Your task to perform on an android device: Clear all items from cart on newegg. Search for macbook on newegg, select the first entry, and add it to the cart. Image 0: 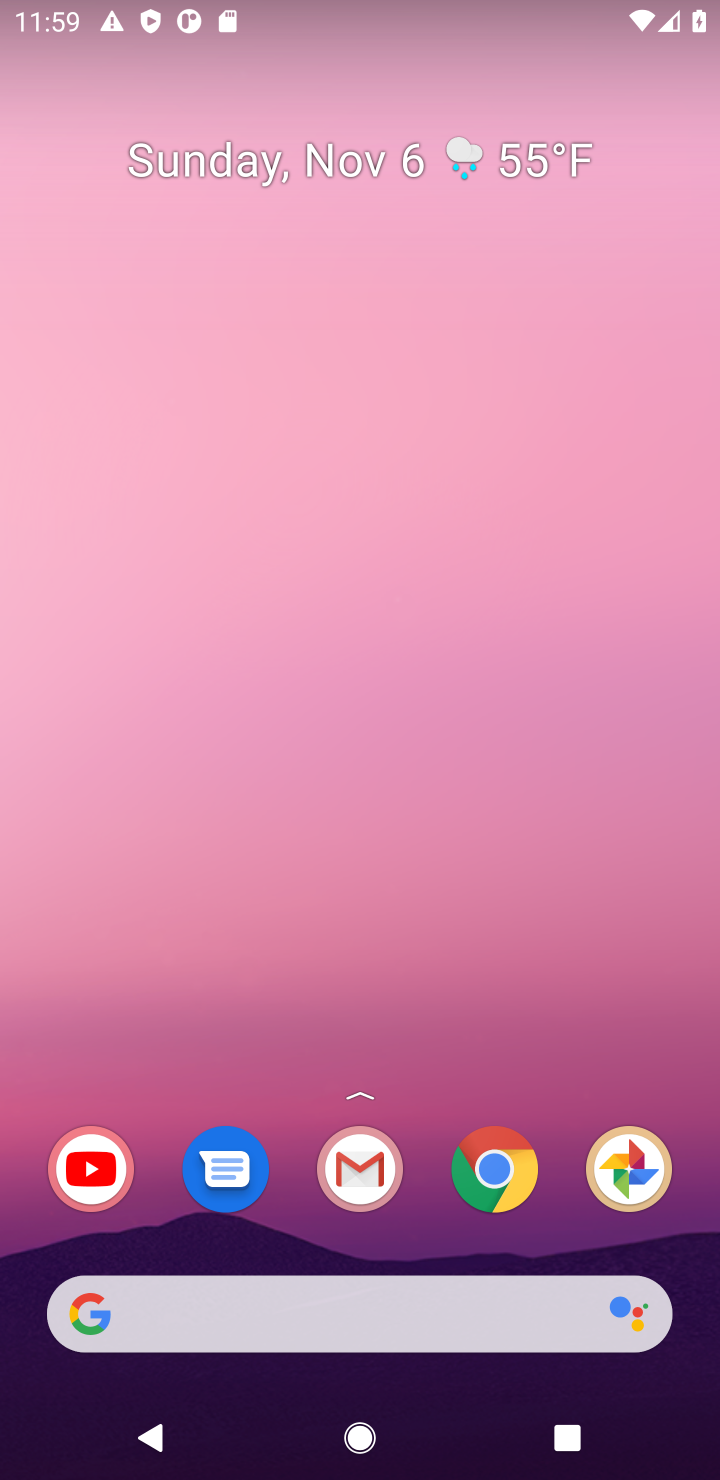
Step 0: click (496, 1176)
Your task to perform on an android device: Clear all items from cart on newegg. Search for macbook on newegg, select the first entry, and add it to the cart. Image 1: 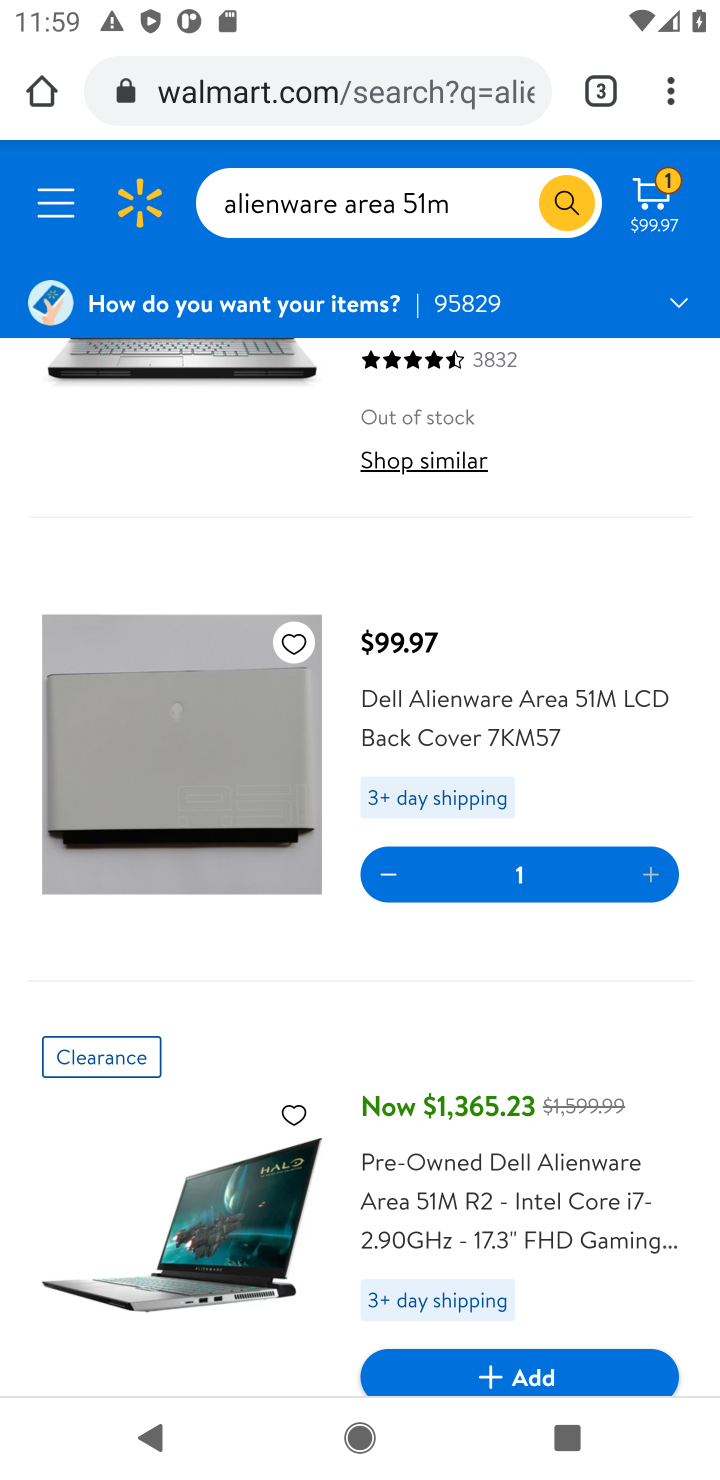
Step 1: click (603, 78)
Your task to perform on an android device: Clear all items from cart on newegg. Search for macbook on newegg, select the first entry, and add it to the cart. Image 2: 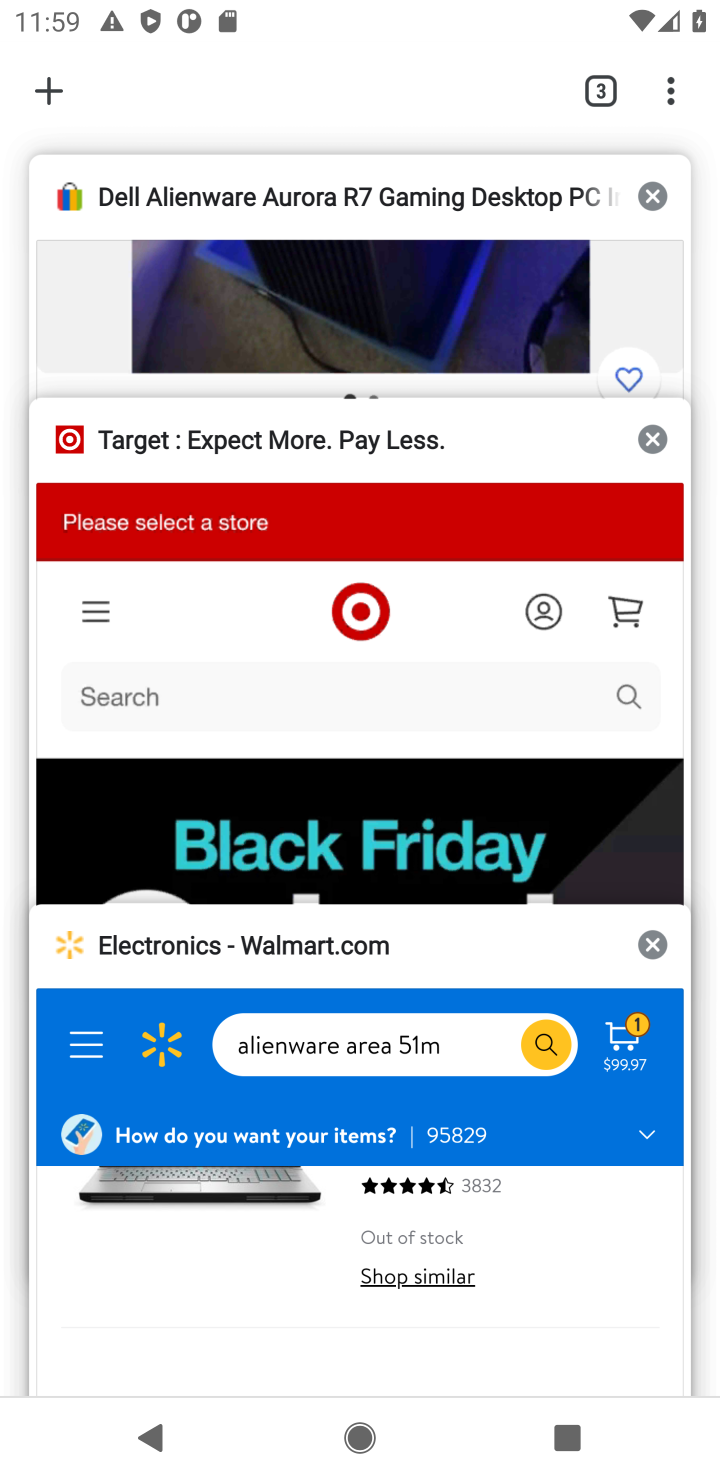
Step 2: click (43, 83)
Your task to perform on an android device: Clear all items from cart on newegg. Search for macbook on newegg, select the first entry, and add it to the cart. Image 3: 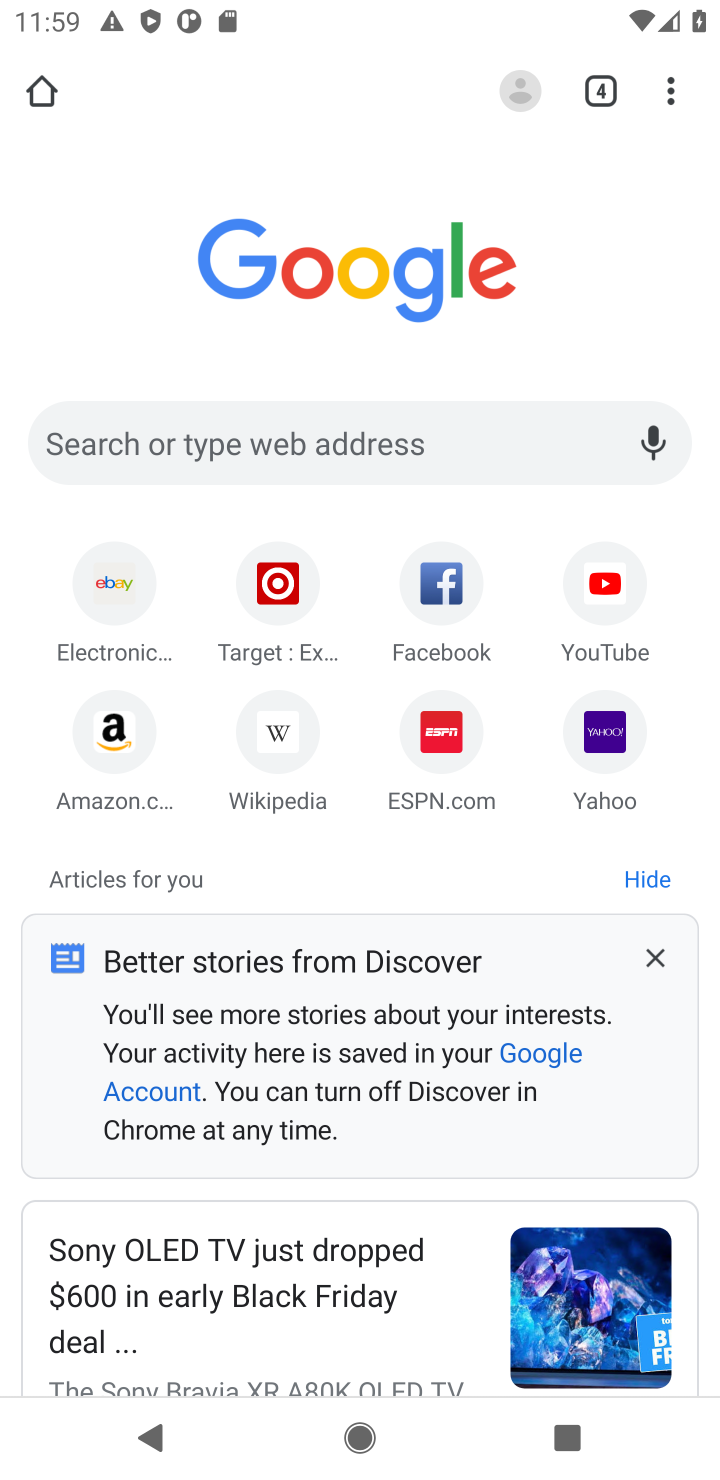
Step 3: click (318, 436)
Your task to perform on an android device: Clear all items from cart on newegg. Search for macbook on newegg, select the first entry, and add it to the cart. Image 4: 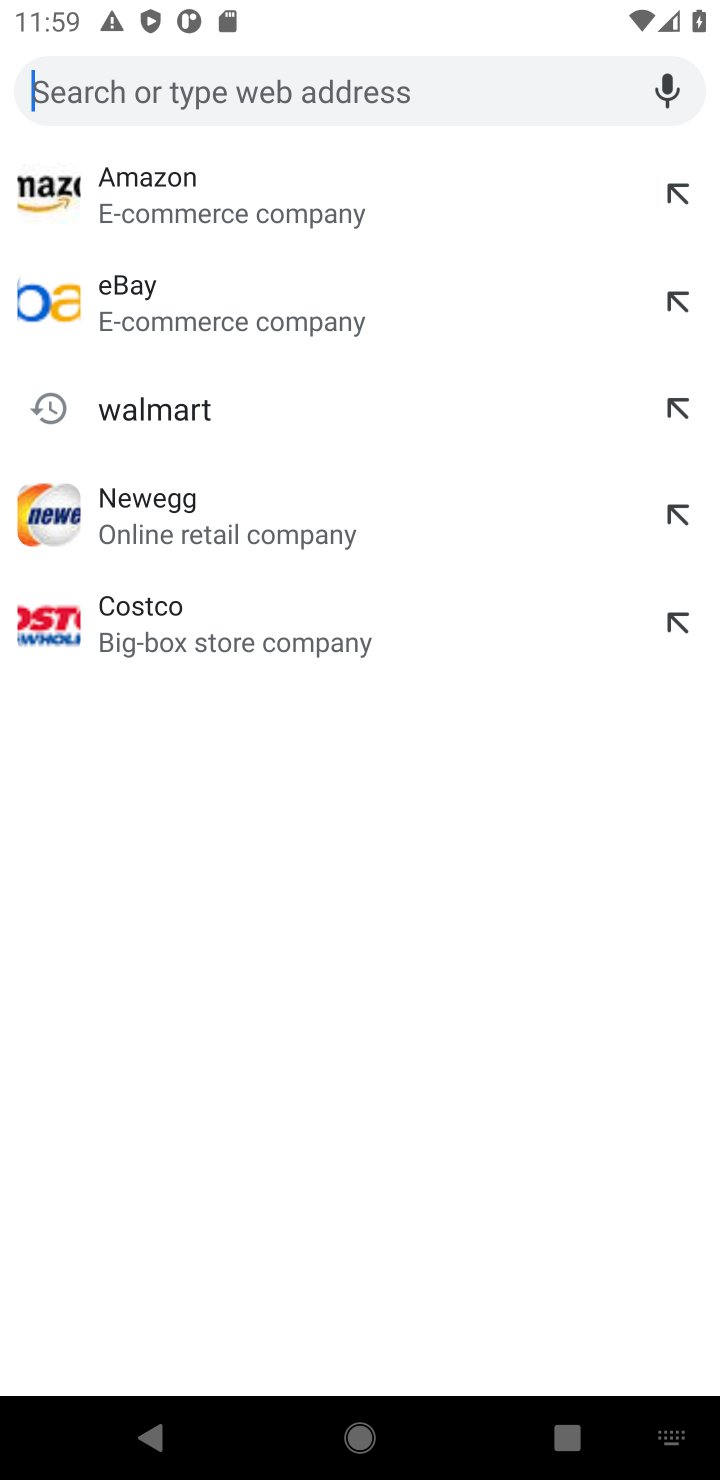
Step 4: click (268, 511)
Your task to perform on an android device: Clear all items from cart on newegg. Search for macbook on newegg, select the first entry, and add it to the cart. Image 5: 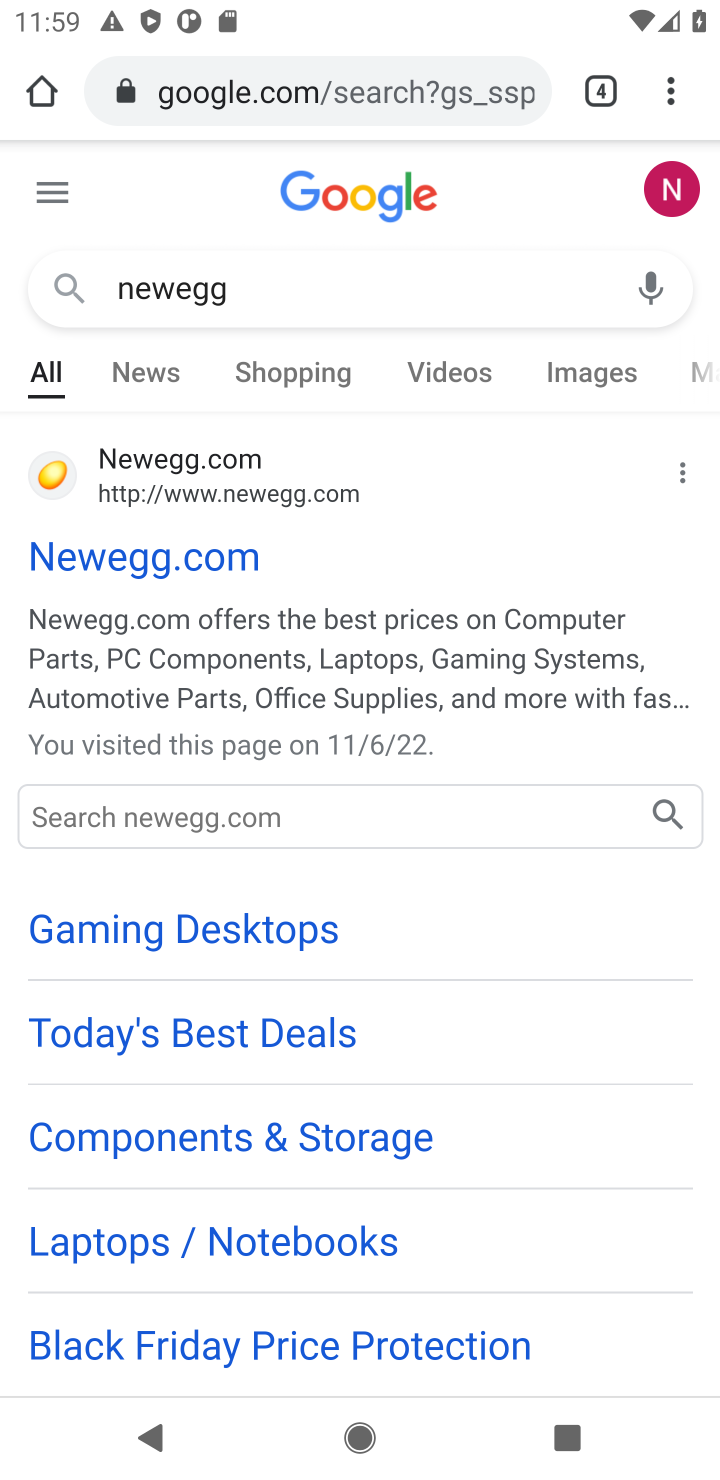
Step 5: click (245, 805)
Your task to perform on an android device: Clear all items from cart on newegg. Search for macbook on newegg, select the first entry, and add it to the cart. Image 6: 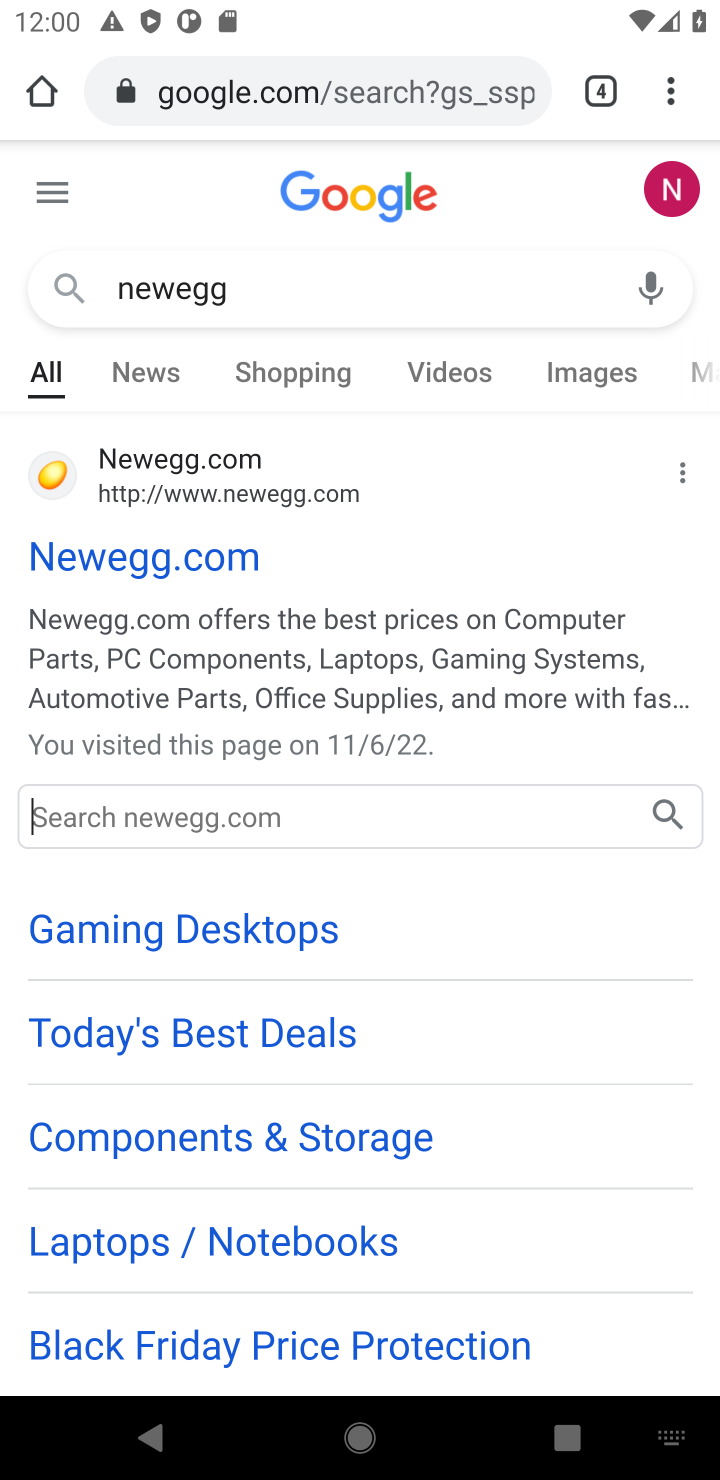
Step 6: type "macbook"
Your task to perform on an android device: Clear all items from cart on newegg. Search for macbook on newegg, select the first entry, and add it to the cart. Image 7: 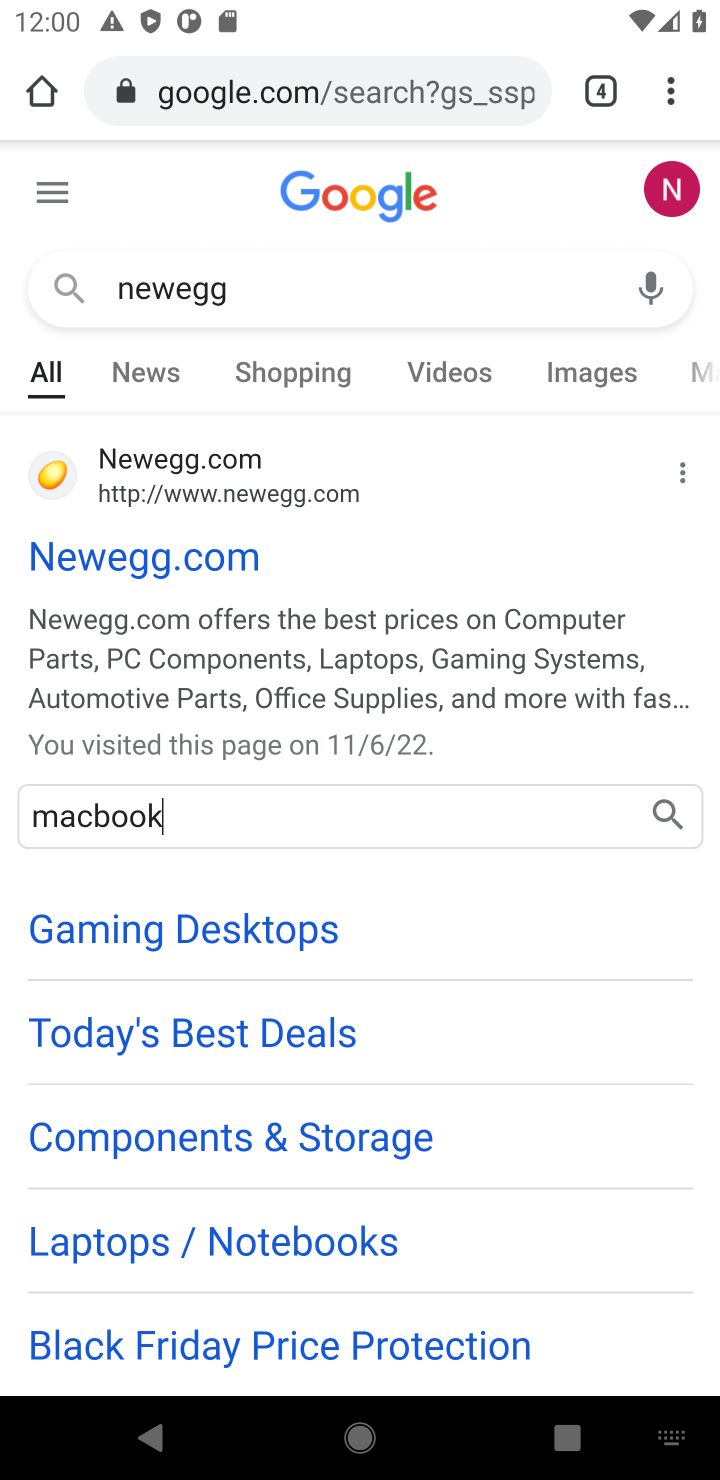
Step 7: click (664, 810)
Your task to perform on an android device: Clear all items from cart on newegg. Search for macbook on newegg, select the first entry, and add it to the cart. Image 8: 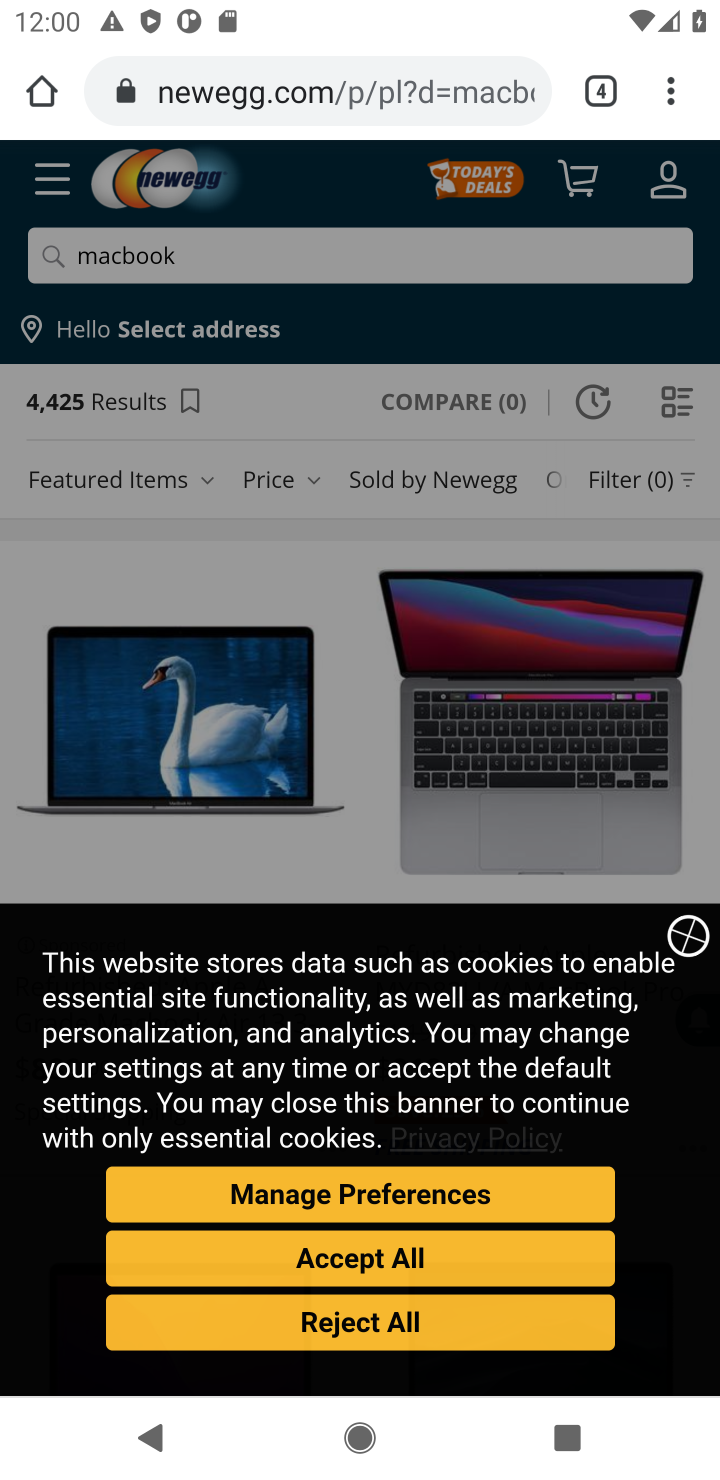
Step 8: click (124, 1009)
Your task to perform on an android device: Clear all items from cart on newegg. Search for macbook on newegg, select the first entry, and add it to the cart. Image 9: 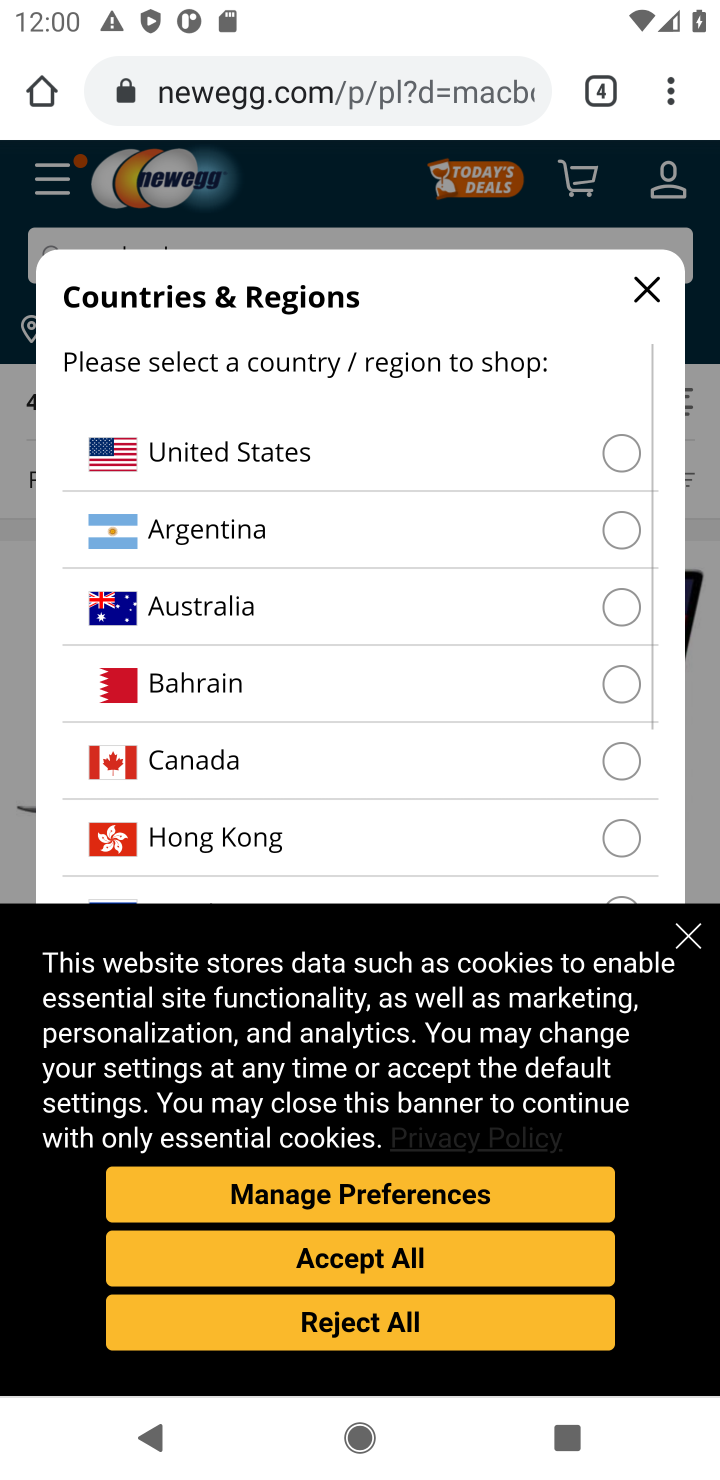
Step 9: click (401, 1263)
Your task to perform on an android device: Clear all items from cart on newegg. Search for macbook on newegg, select the first entry, and add it to the cart. Image 10: 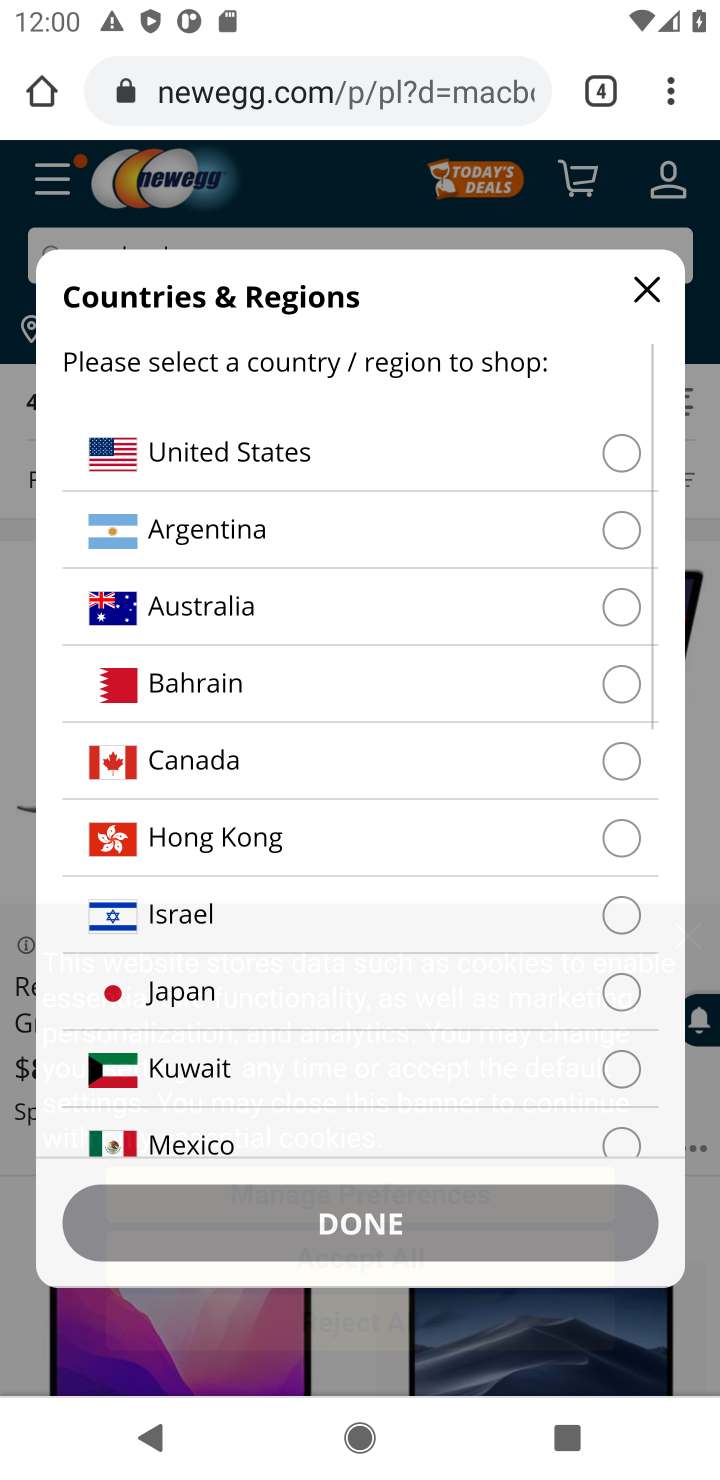
Step 10: click (634, 459)
Your task to perform on an android device: Clear all items from cart on newegg. Search for macbook on newegg, select the first entry, and add it to the cart. Image 11: 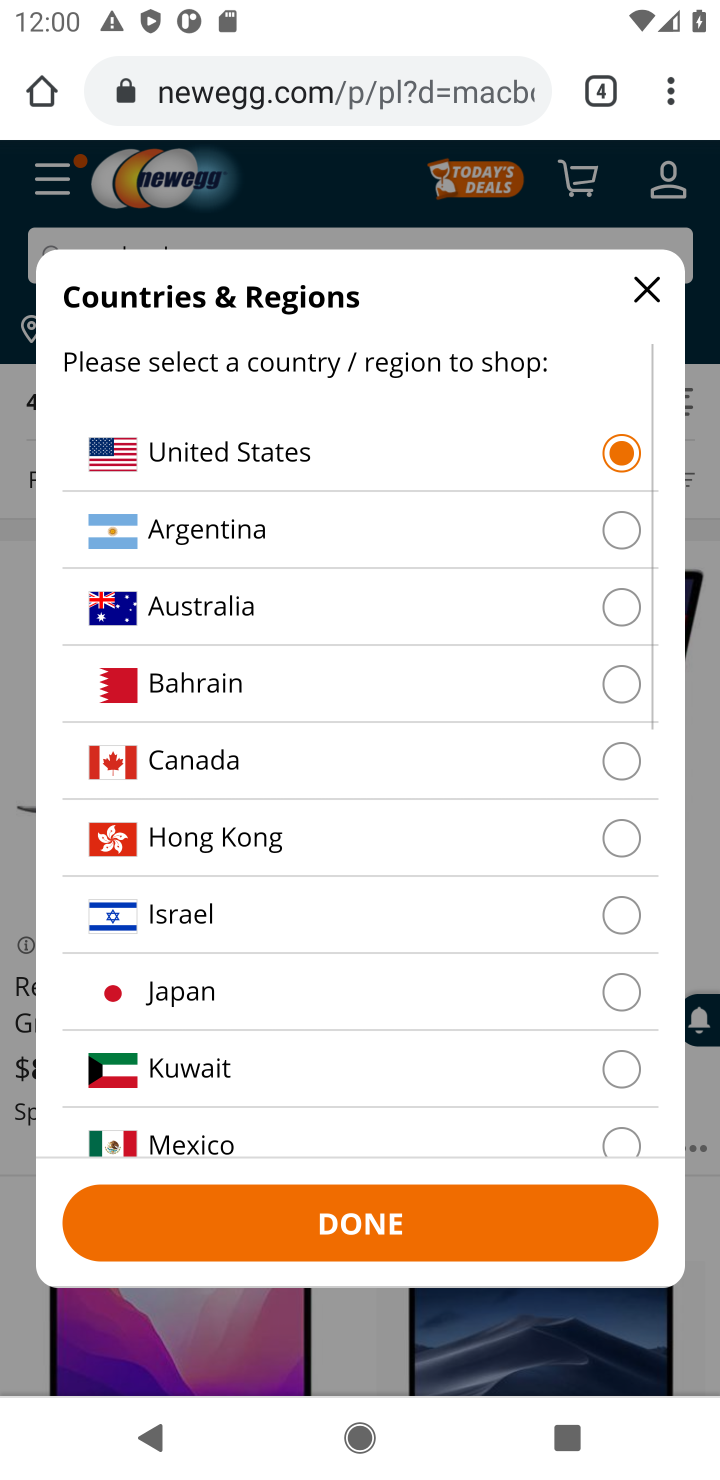
Step 11: click (410, 1224)
Your task to perform on an android device: Clear all items from cart on newegg. Search for macbook on newegg, select the first entry, and add it to the cart. Image 12: 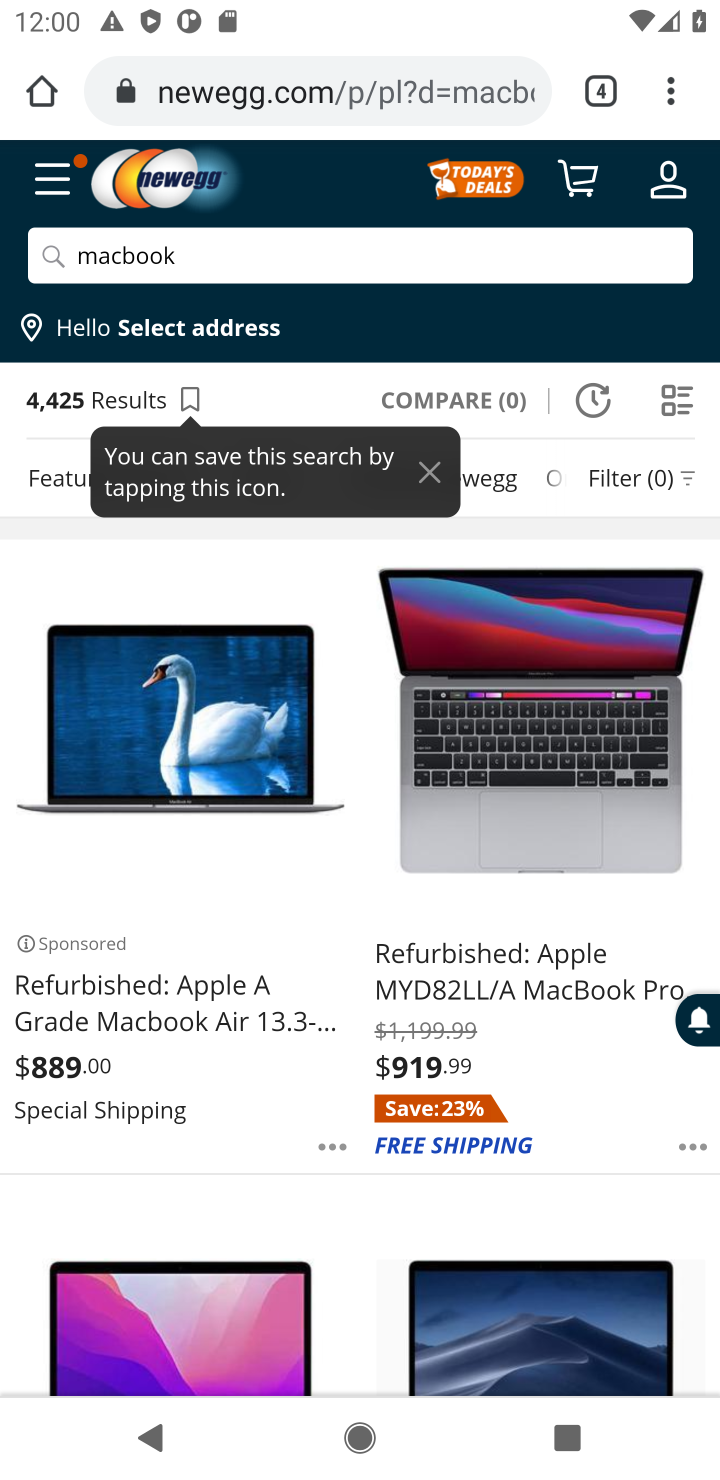
Step 12: click (513, 972)
Your task to perform on an android device: Clear all items from cart on newegg. Search for macbook on newegg, select the first entry, and add it to the cart. Image 13: 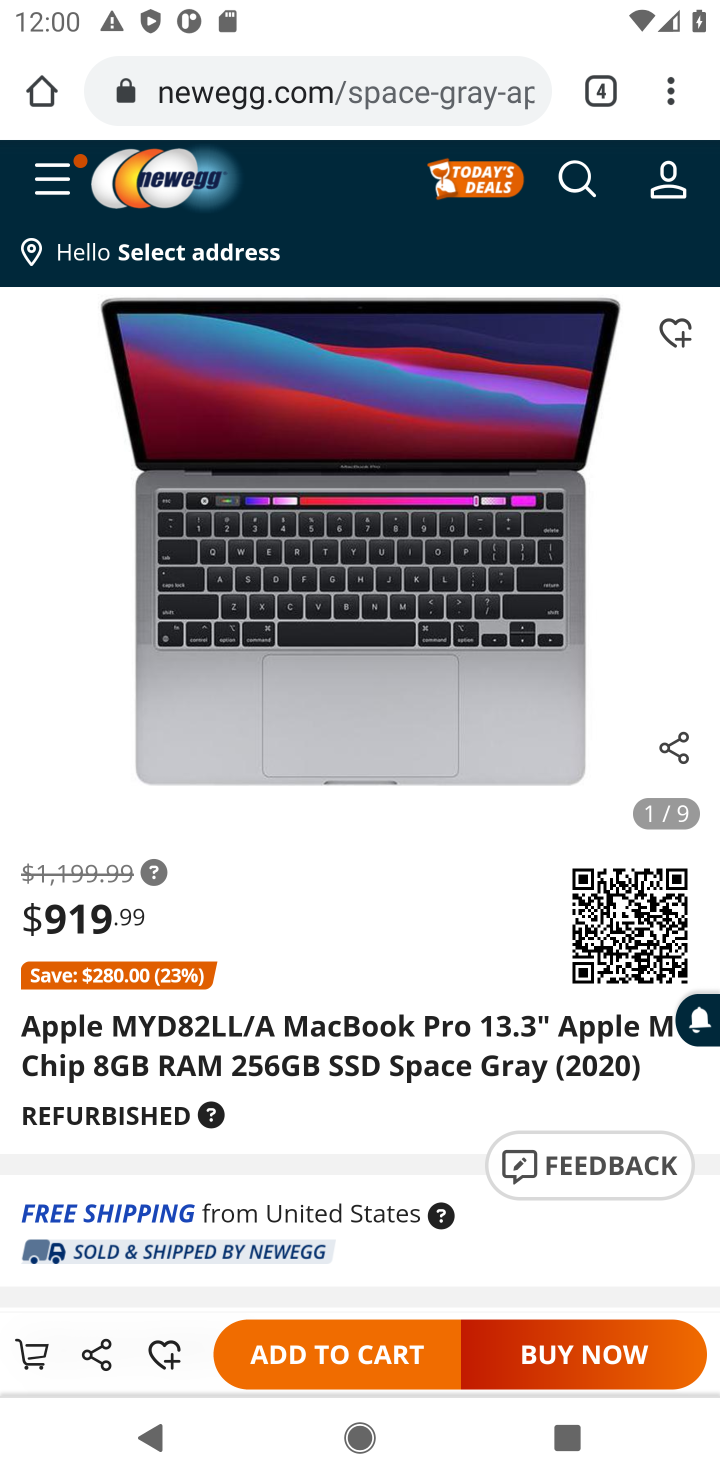
Step 13: click (302, 1352)
Your task to perform on an android device: Clear all items from cart on newegg. Search for macbook on newegg, select the first entry, and add it to the cart. Image 14: 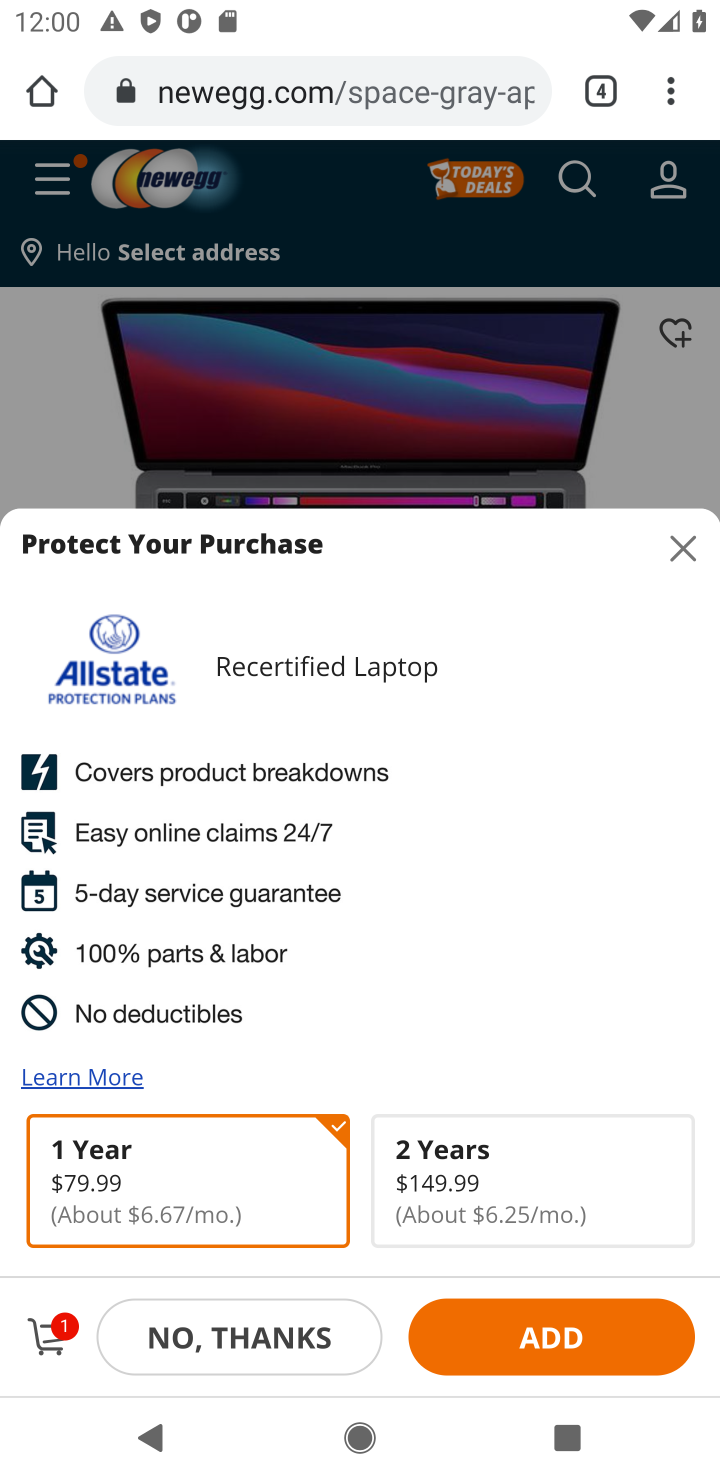
Step 14: task complete